Your task to perform on an android device: clear history in the chrome app Image 0: 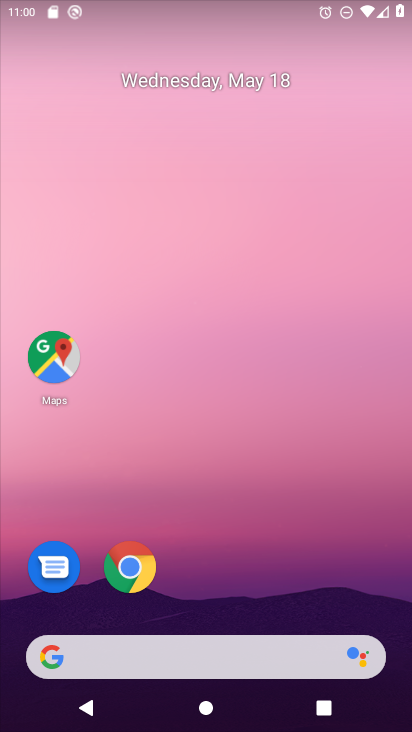
Step 0: press home button
Your task to perform on an android device: clear history in the chrome app Image 1: 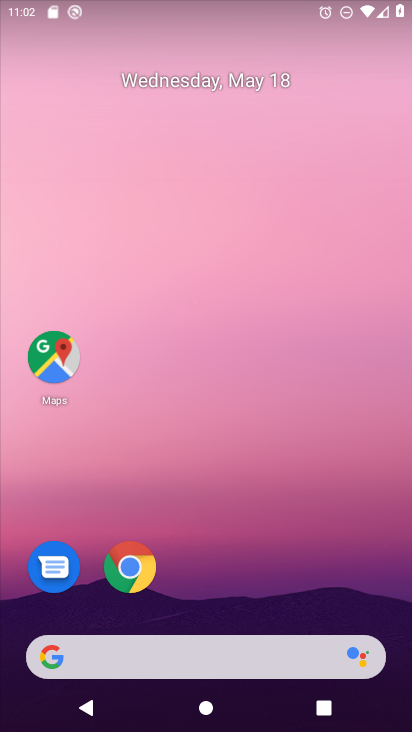
Step 1: drag from (274, 688) to (235, 165)
Your task to perform on an android device: clear history in the chrome app Image 2: 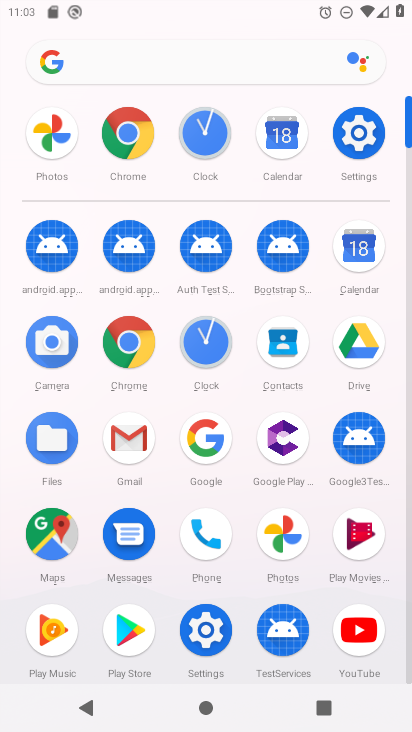
Step 2: click (114, 341)
Your task to perform on an android device: clear history in the chrome app Image 3: 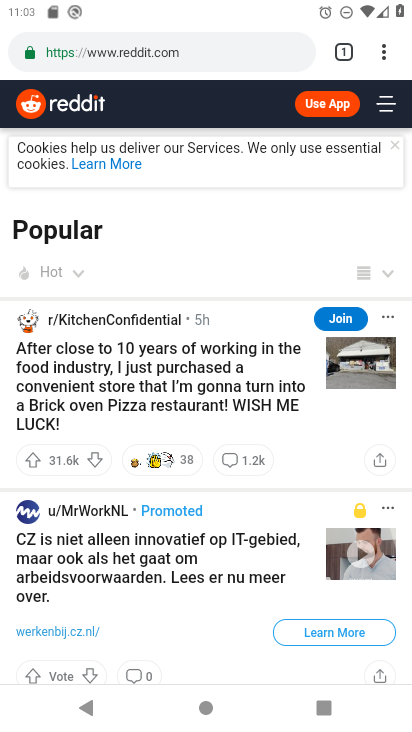
Step 3: click (371, 64)
Your task to perform on an android device: clear history in the chrome app Image 4: 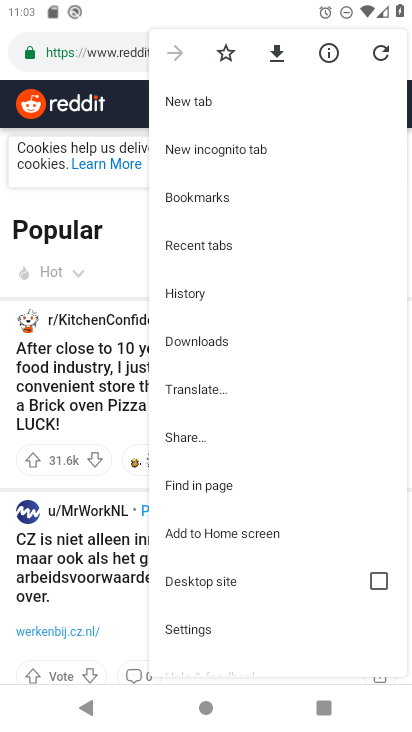
Step 4: click (227, 623)
Your task to perform on an android device: clear history in the chrome app Image 5: 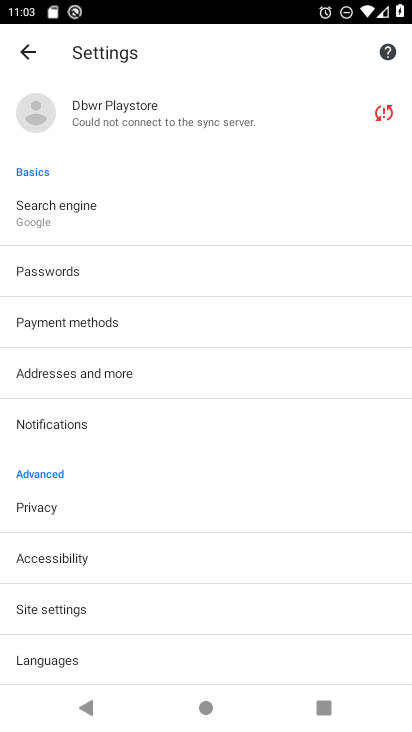
Step 5: click (37, 498)
Your task to perform on an android device: clear history in the chrome app Image 6: 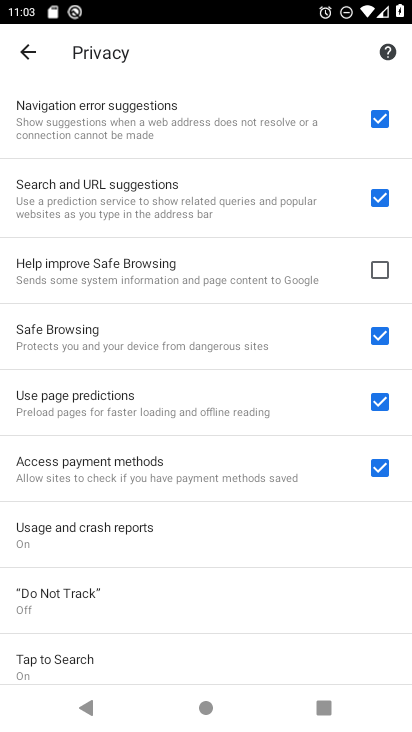
Step 6: drag from (163, 601) to (198, 372)
Your task to perform on an android device: clear history in the chrome app Image 7: 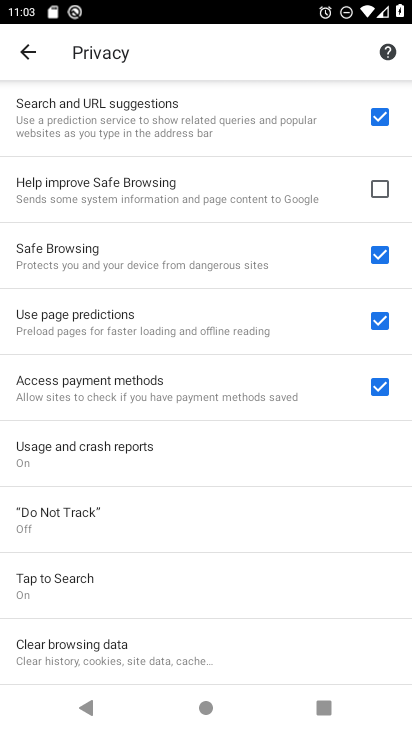
Step 7: click (130, 647)
Your task to perform on an android device: clear history in the chrome app Image 8: 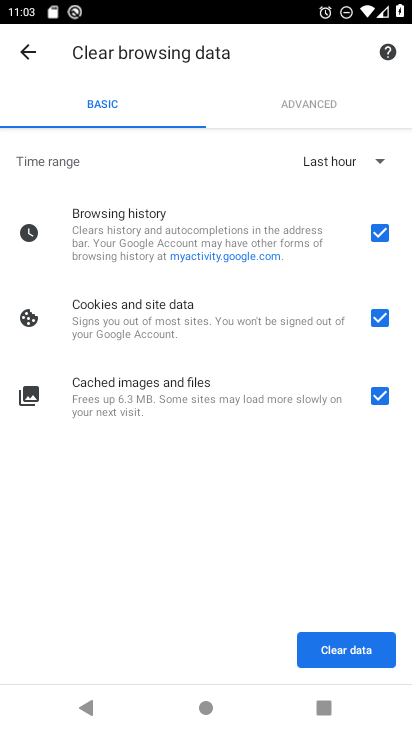
Step 8: click (340, 647)
Your task to perform on an android device: clear history in the chrome app Image 9: 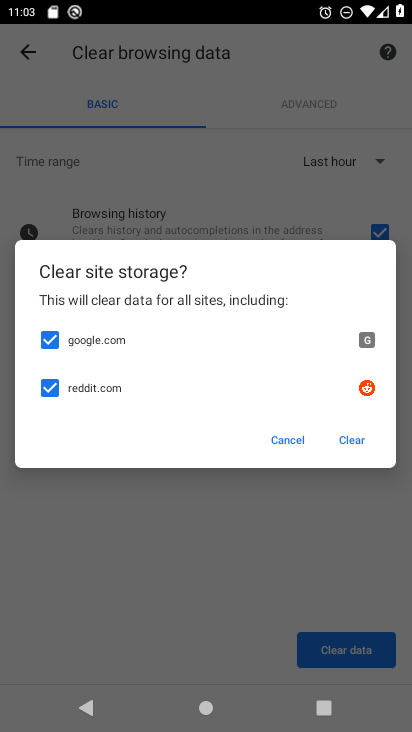
Step 9: task complete